Your task to perform on an android device: turn off airplane mode Image 0: 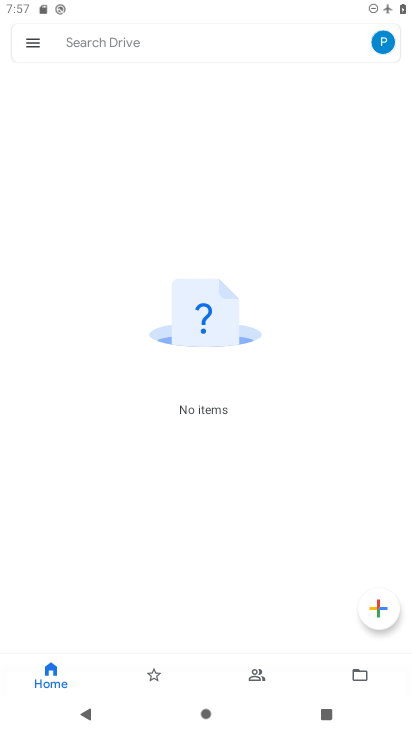
Step 0: press home button
Your task to perform on an android device: turn off airplane mode Image 1: 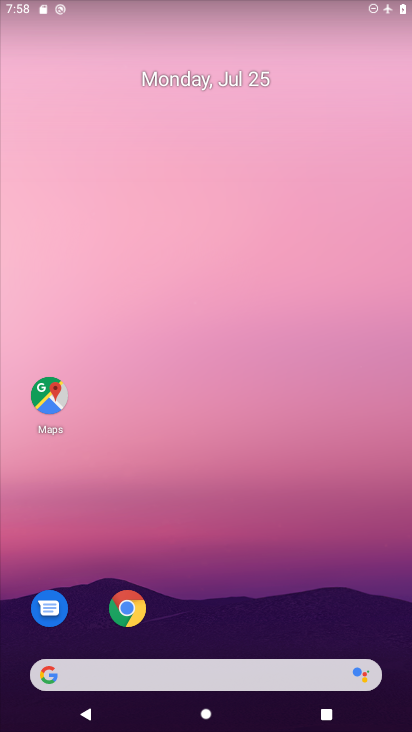
Step 1: drag from (284, 564) to (152, 85)
Your task to perform on an android device: turn off airplane mode Image 2: 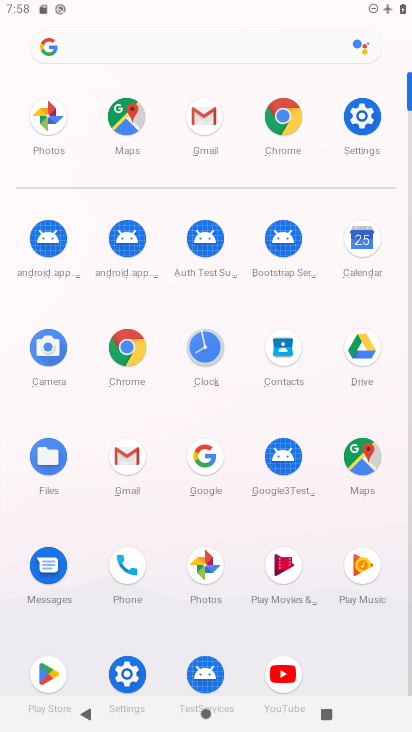
Step 2: click (360, 110)
Your task to perform on an android device: turn off airplane mode Image 3: 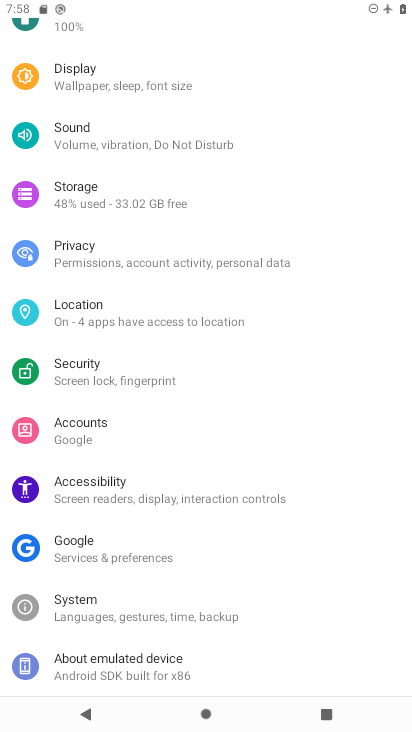
Step 3: drag from (163, 94) to (205, 568)
Your task to perform on an android device: turn off airplane mode Image 4: 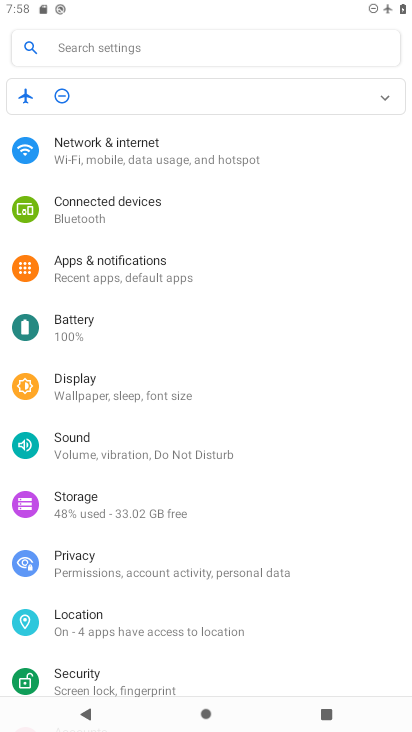
Step 4: click (117, 159)
Your task to perform on an android device: turn off airplane mode Image 5: 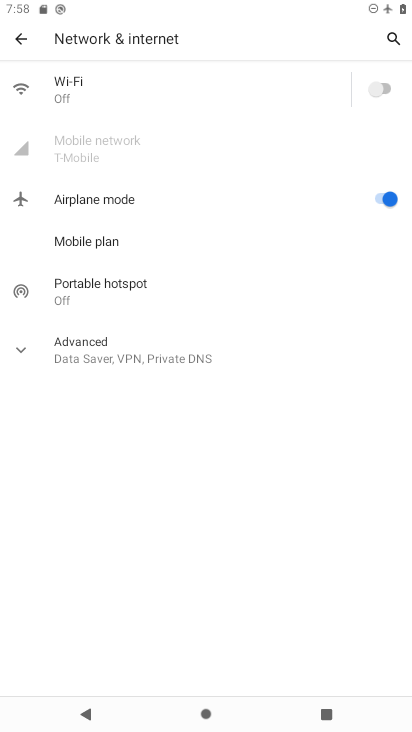
Step 5: click (388, 202)
Your task to perform on an android device: turn off airplane mode Image 6: 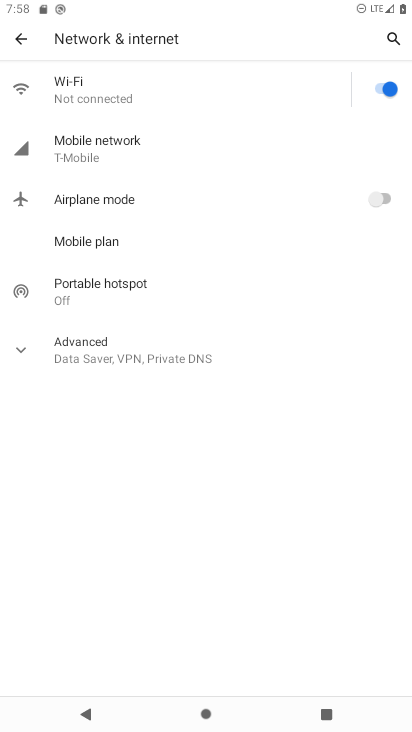
Step 6: task complete